Your task to perform on an android device: Set the phone to "Do not disturb". Image 0: 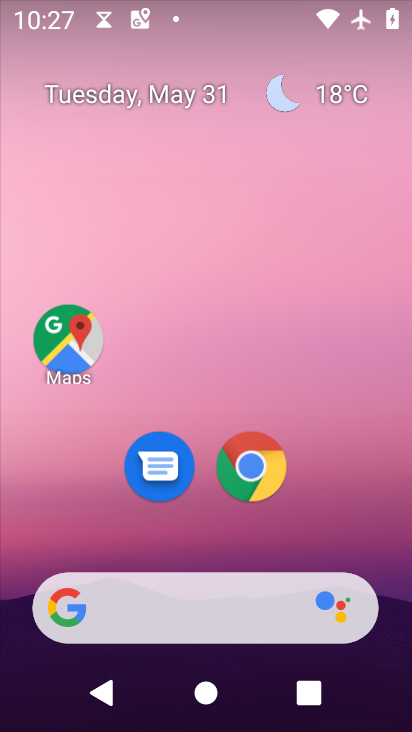
Step 0: drag from (335, 521) to (200, 7)
Your task to perform on an android device: Set the phone to "Do not disturb". Image 1: 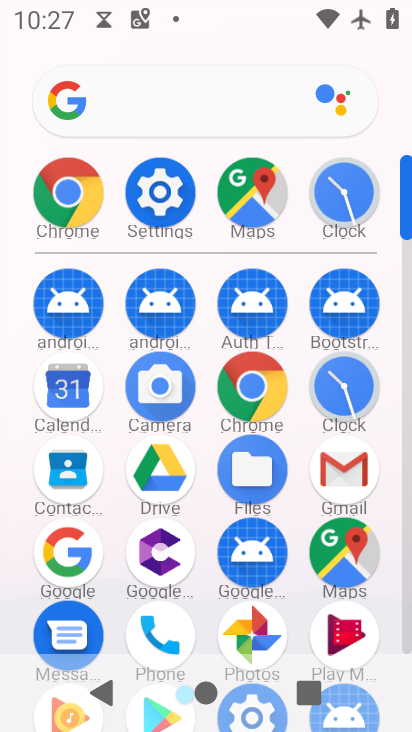
Step 1: drag from (14, 538) to (30, 168)
Your task to perform on an android device: Set the phone to "Do not disturb". Image 2: 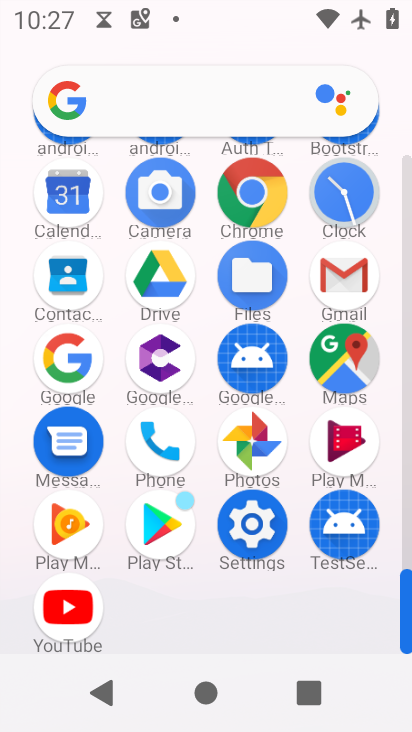
Step 2: click (247, 520)
Your task to perform on an android device: Set the phone to "Do not disturb". Image 3: 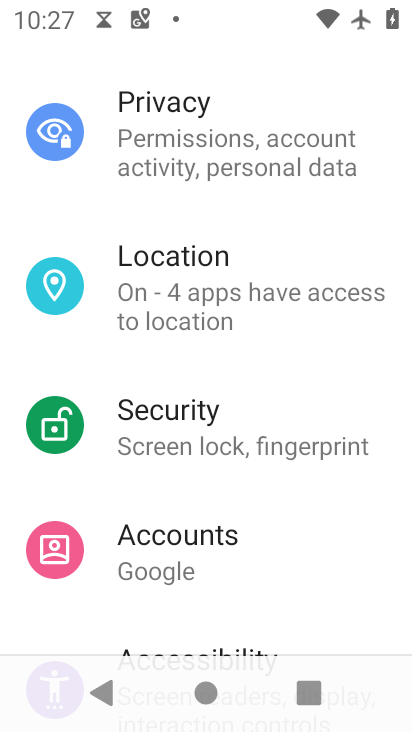
Step 3: drag from (298, 537) to (278, 140)
Your task to perform on an android device: Set the phone to "Do not disturb". Image 4: 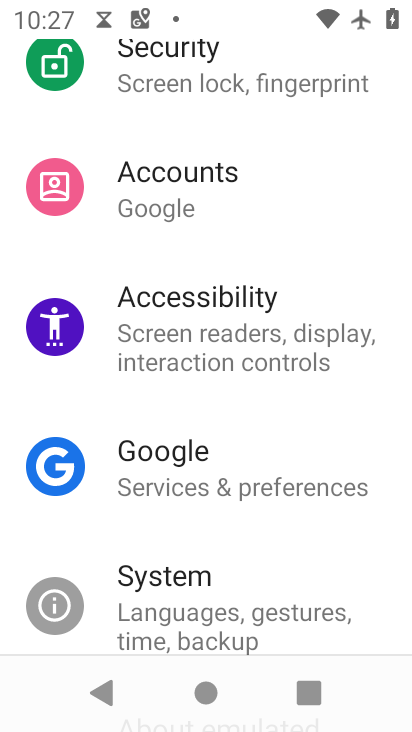
Step 4: drag from (276, 488) to (262, 111)
Your task to perform on an android device: Set the phone to "Do not disturb". Image 5: 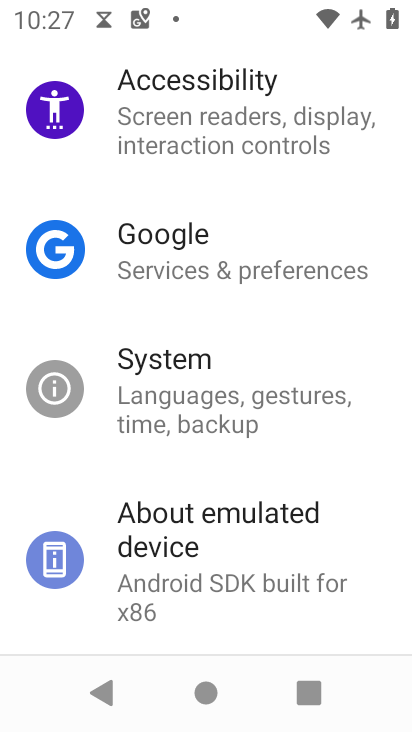
Step 5: drag from (307, 464) to (284, 121)
Your task to perform on an android device: Set the phone to "Do not disturb". Image 6: 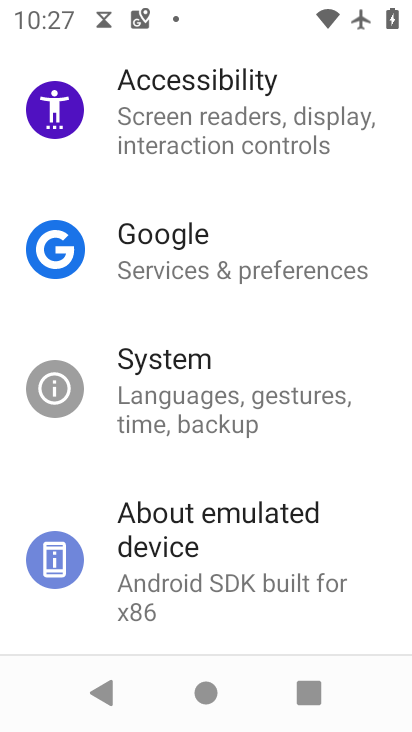
Step 6: drag from (279, 290) to (281, 628)
Your task to perform on an android device: Set the phone to "Do not disturb". Image 7: 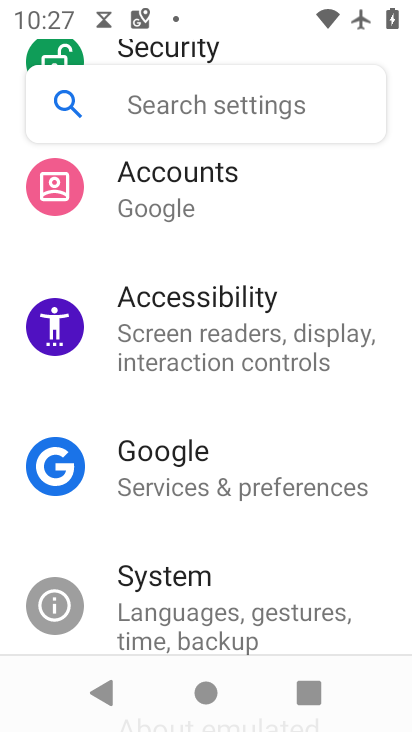
Step 7: drag from (278, 228) to (283, 568)
Your task to perform on an android device: Set the phone to "Do not disturb". Image 8: 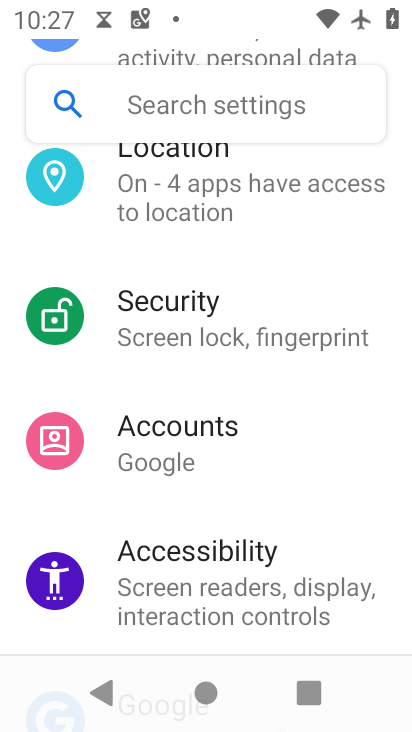
Step 8: drag from (304, 240) to (292, 507)
Your task to perform on an android device: Set the phone to "Do not disturb". Image 9: 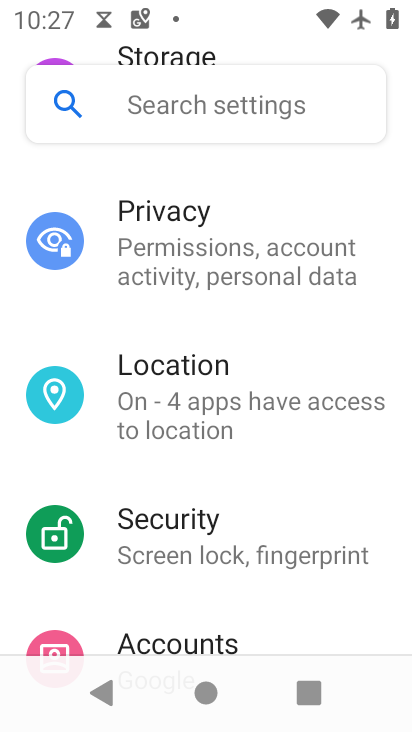
Step 9: drag from (276, 229) to (290, 519)
Your task to perform on an android device: Set the phone to "Do not disturb". Image 10: 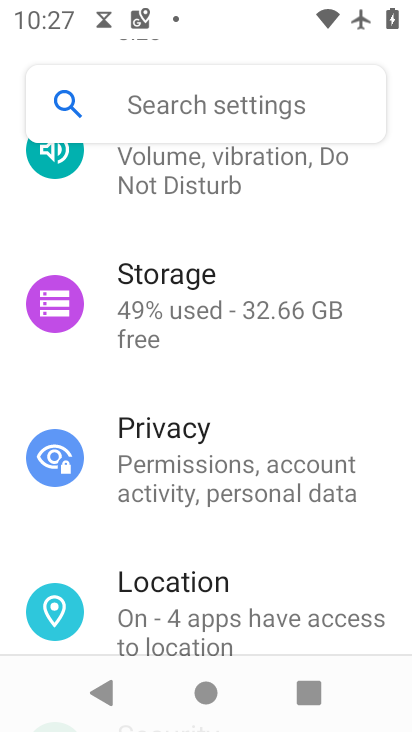
Step 10: click (255, 197)
Your task to perform on an android device: Set the phone to "Do not disturb". Image 11: 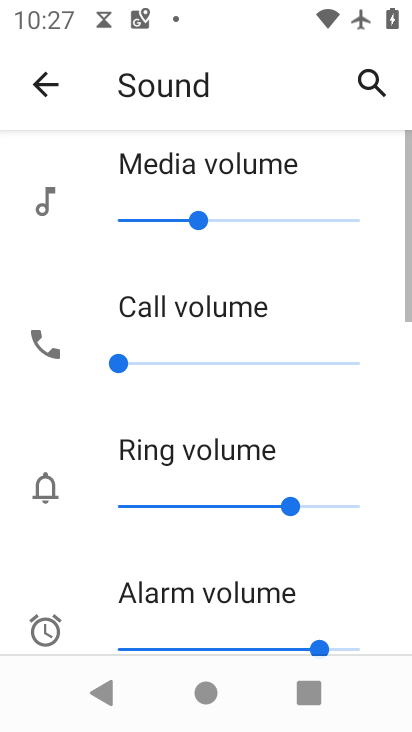
Step 11: drag from (268, 589) to (274, 89)
Your task to perform on an android device: Set the phone to "Do not disturb". Image 12: 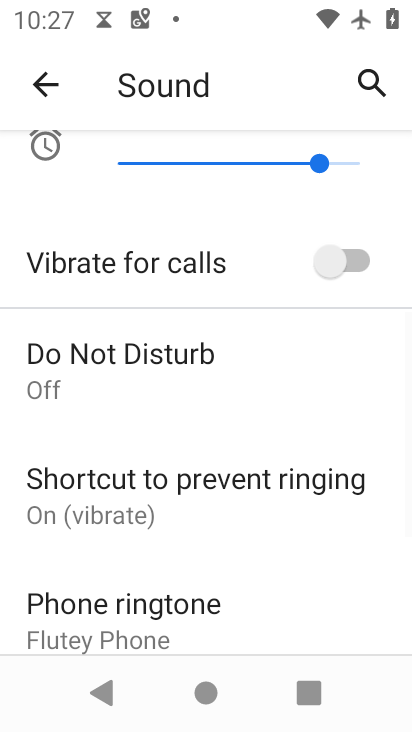
Step 12: drag from (213, 492) to (198, 366)
Your task to perform on an android device: Set the phone to "Do not disturb". Image 13: 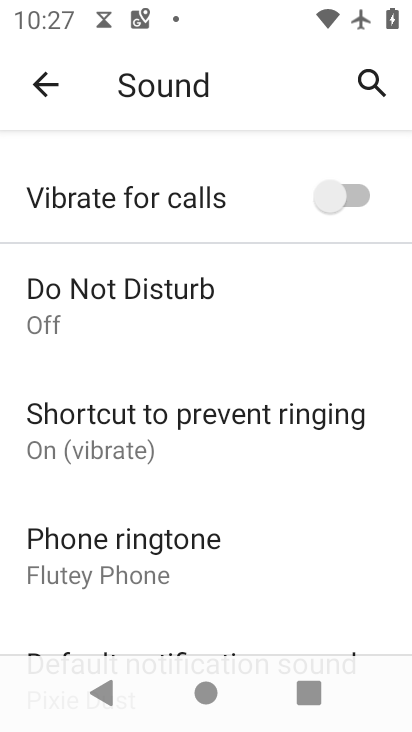
Step 13: click (148, 312)
Your task to perform on an android device: Set the phone to "Do not disturb". Image 14: 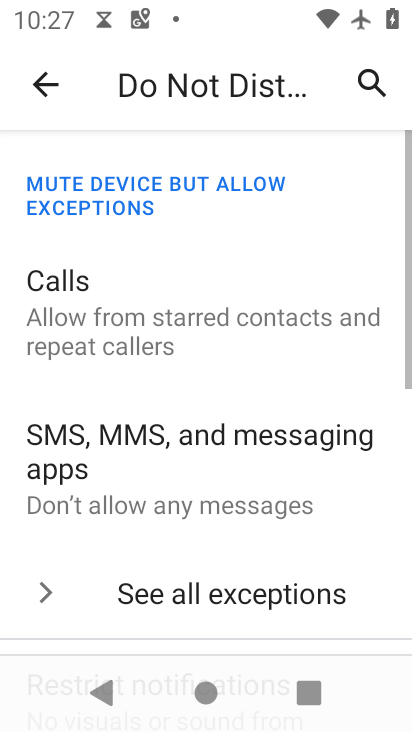
Step 14: drag from (230, 530) to (242, 143)
Your task to perform on an android device: Set the phone to "Do not disturb". Image 15: 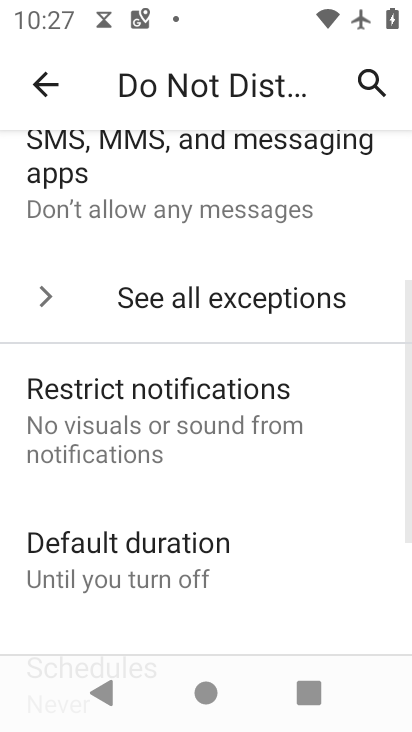
Step 15: drag from (244, 473) to (261, 112)
Your task to perform on an android device: Set the phone to "Do not disturb". Image 16: 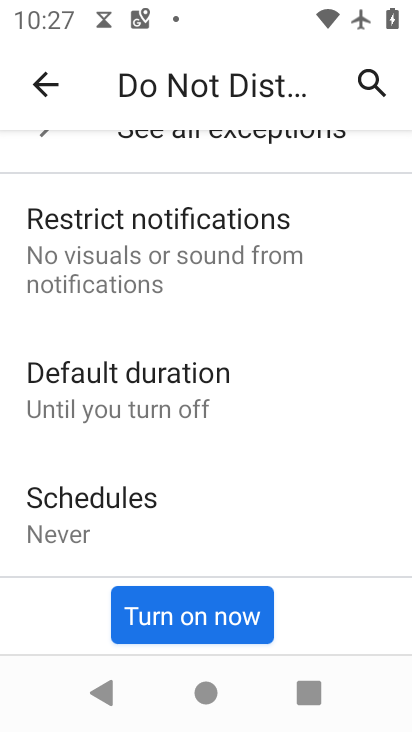
Step 16: click (179, 619)
Your task to perform on an android device: Set the phone to "Do not disturb". Image 17: 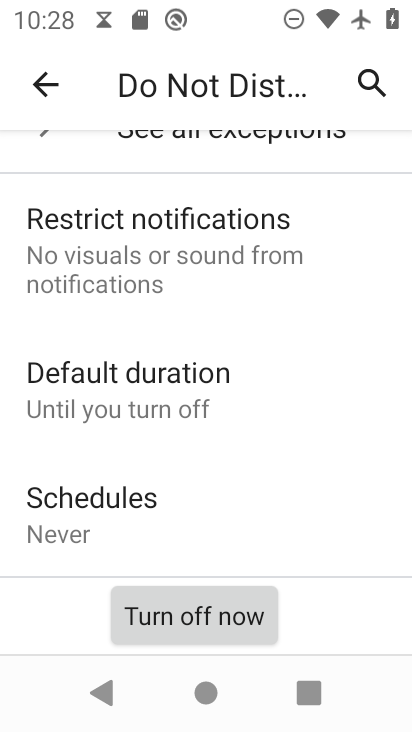
Step 17: task complete